Your task to perform on an android device: toggle location history Image 0: 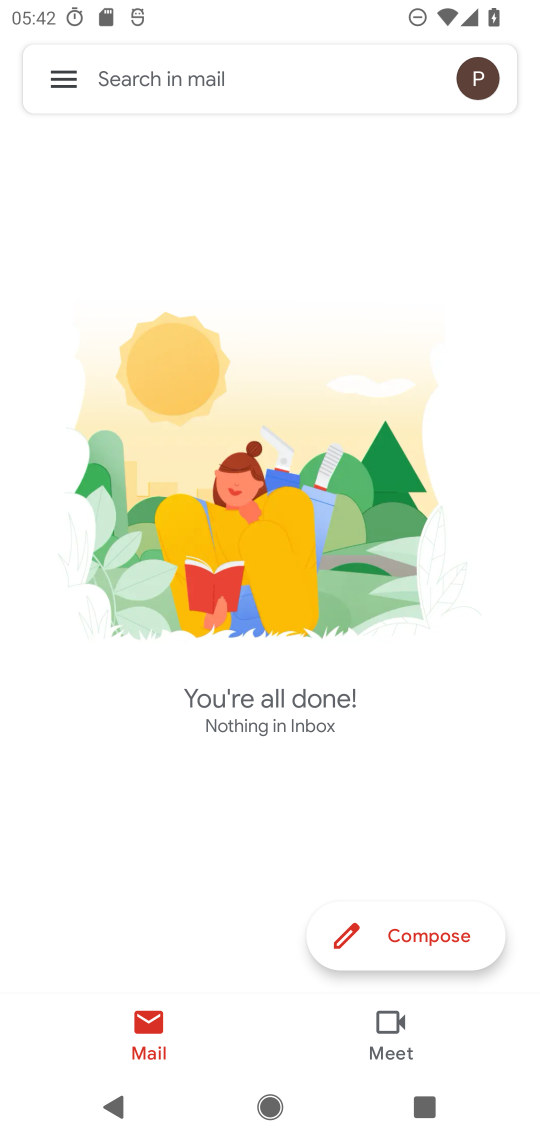
Step 0: press home button
Your task to perform on an android device: toggle location history Image 1: 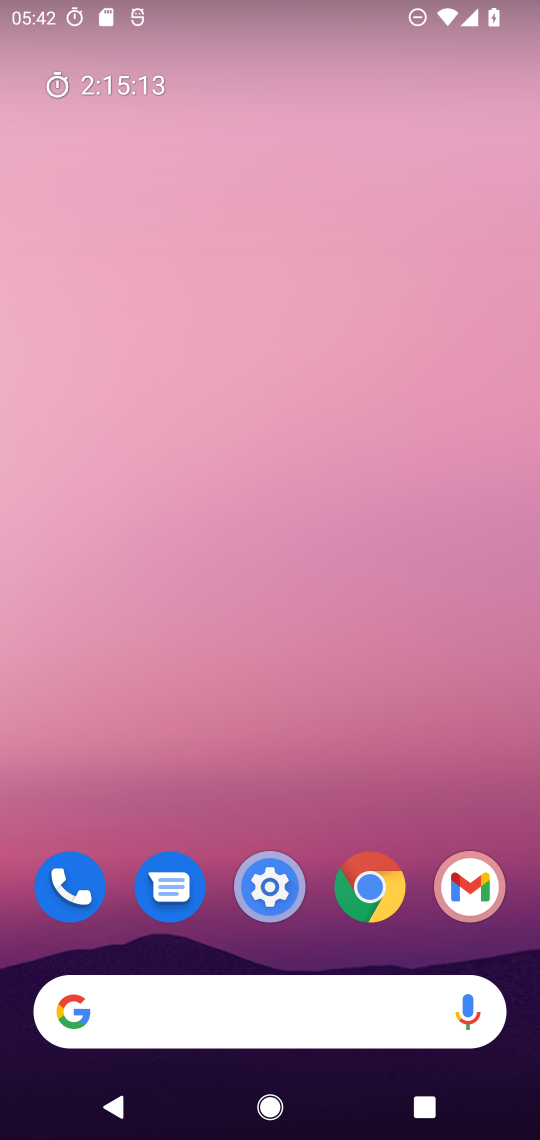
Step 1: drag from (419, 718) to (433, 248)
Your task to perform on an android device: toggle location history Image 2: 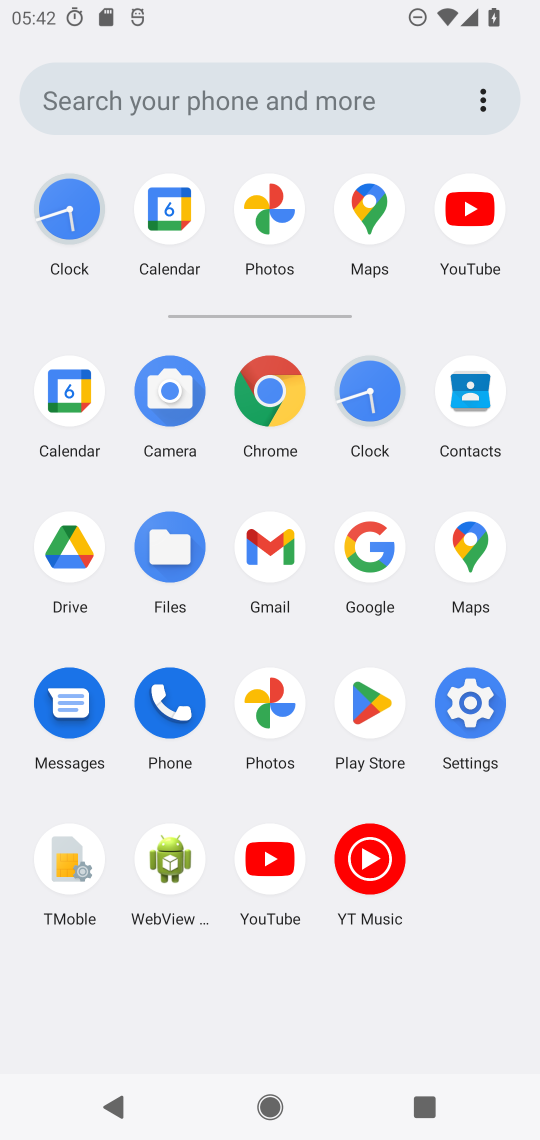
Step 2: click (467, 703)
Your task to perform on an android device: toggle location history Image 3: 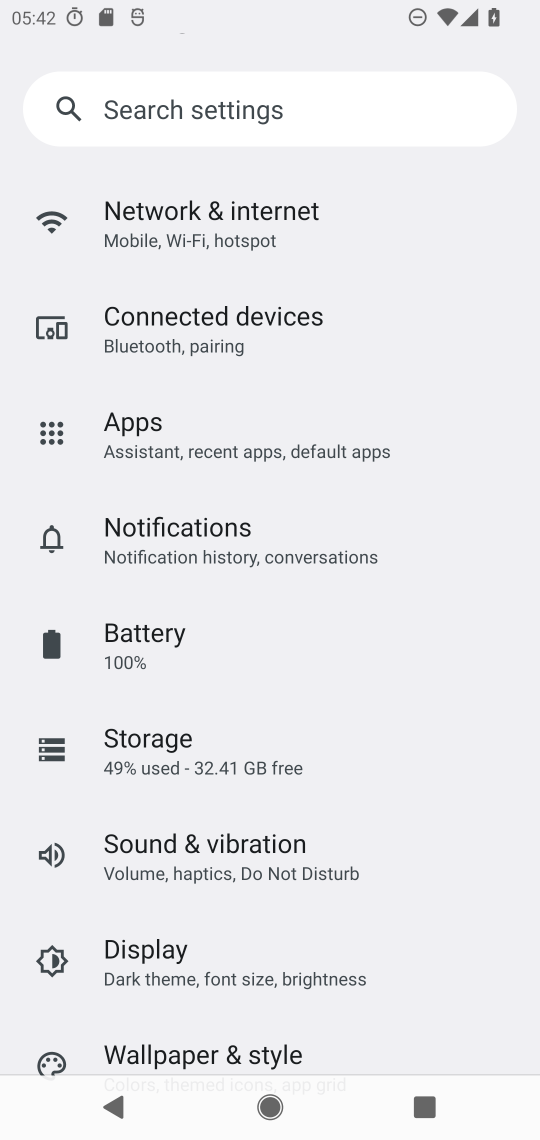
Step 3: drag from (447, 759) to (448, 645)
Your task to perform on an android device: toggle location history Image 4: 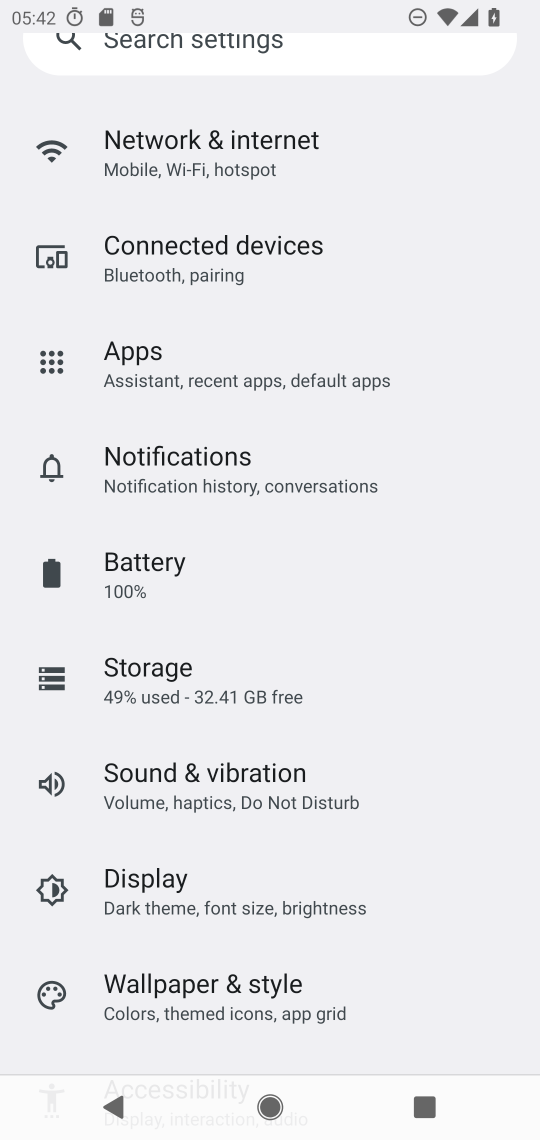
Step 4: drag from (454, 837) to (442, 694)
Your task to perform on an android device: toggle location history Image 5: 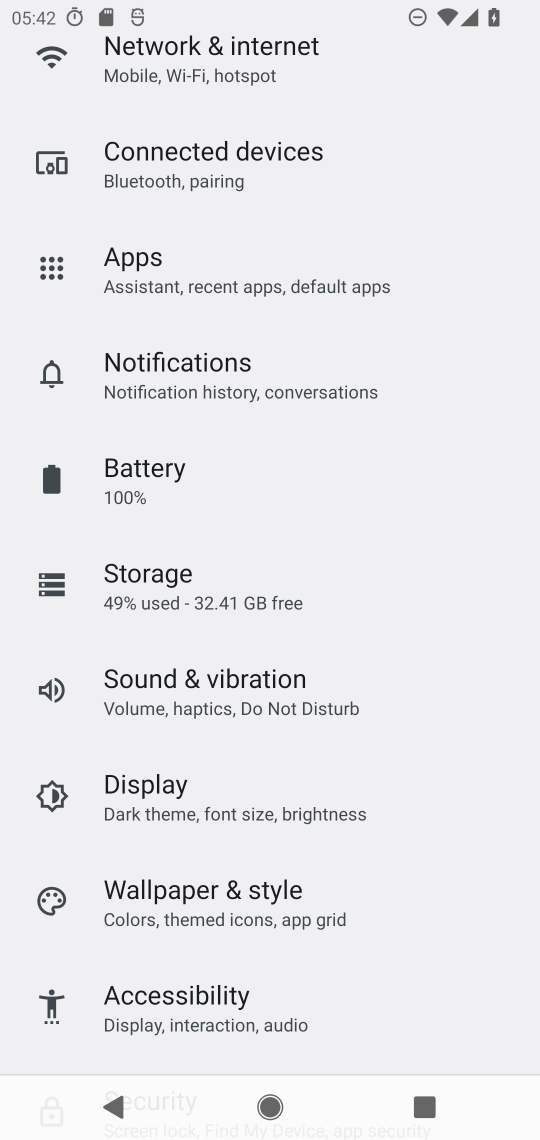
Step 5: drag from (404, 904) to (404, 682)
Your task to perform on an android device: toggle location history Image 6: 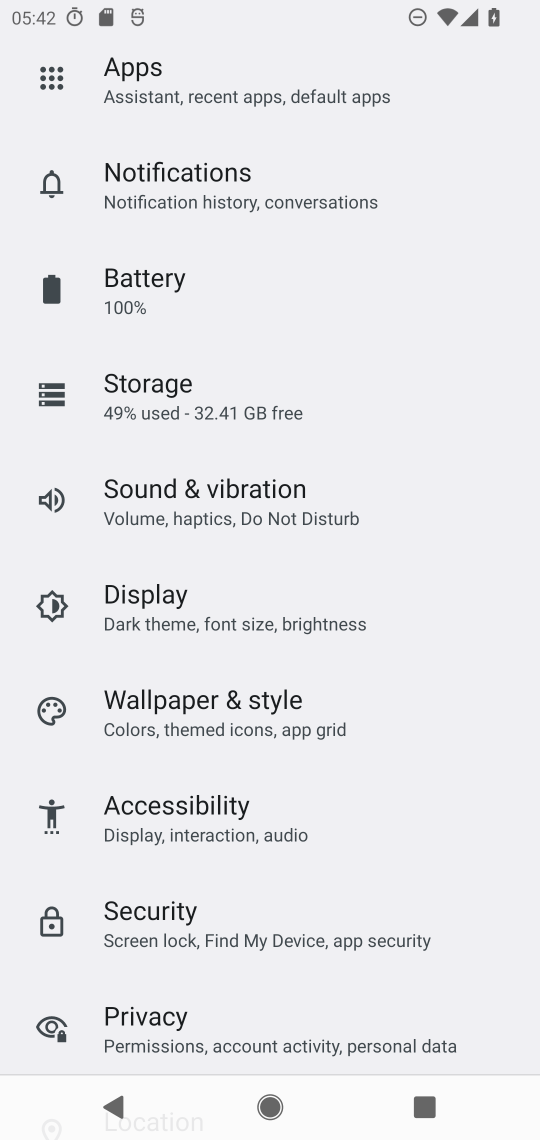
Step 6: drag from (399, 848) to (405, 656)
Your task to perform on an android device: toggle location history Image 7: 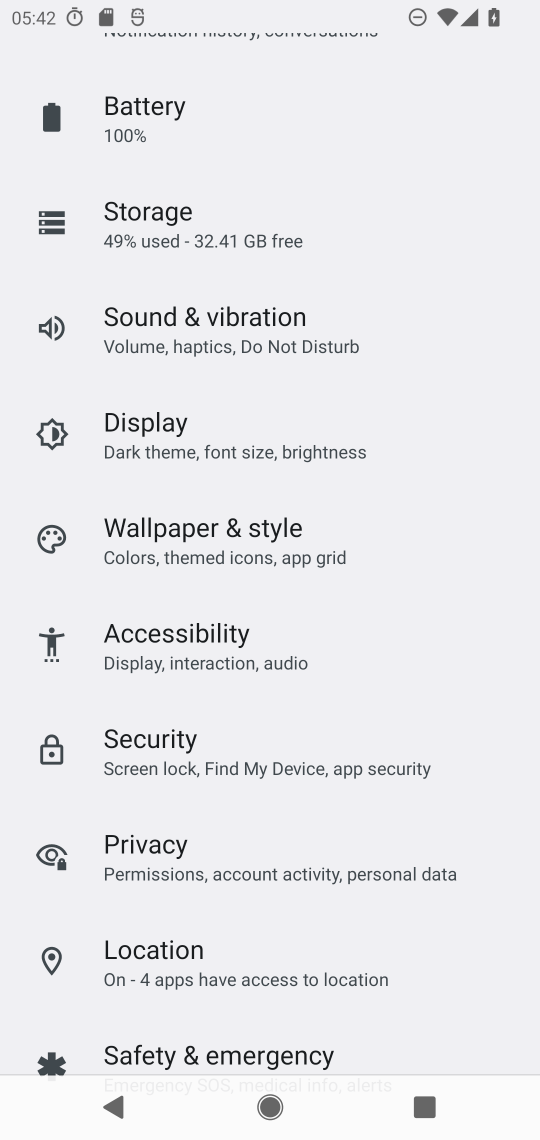
Step 7: drag from (436, 915) to (454, 689)
Your task to perform on an android device: toggle location history Image 8: 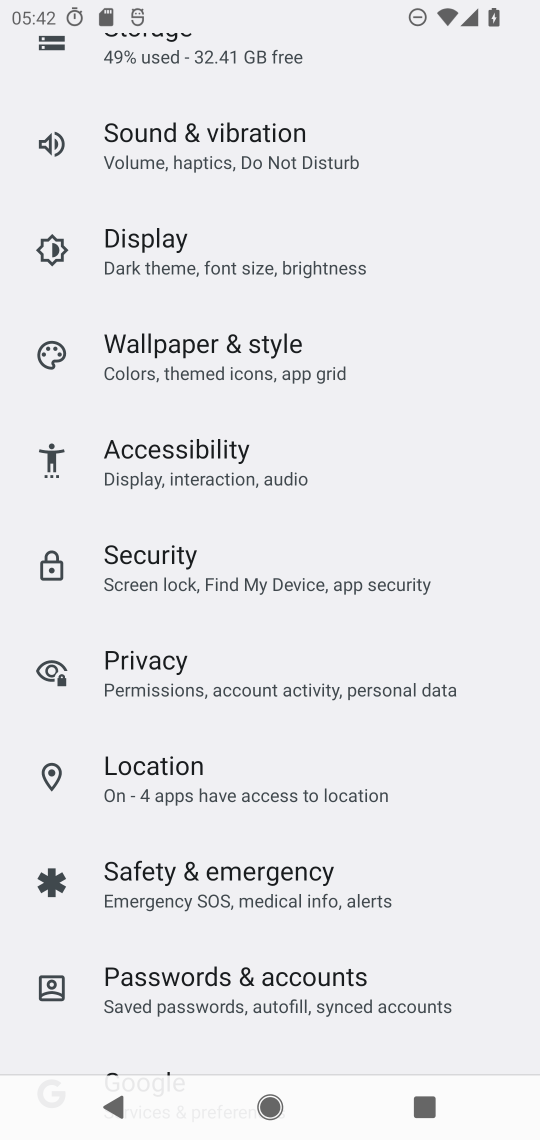
Step 8: drag from (471, 892) to (471, 637)
Your task to perform on an android device: toggle location history Image 9: 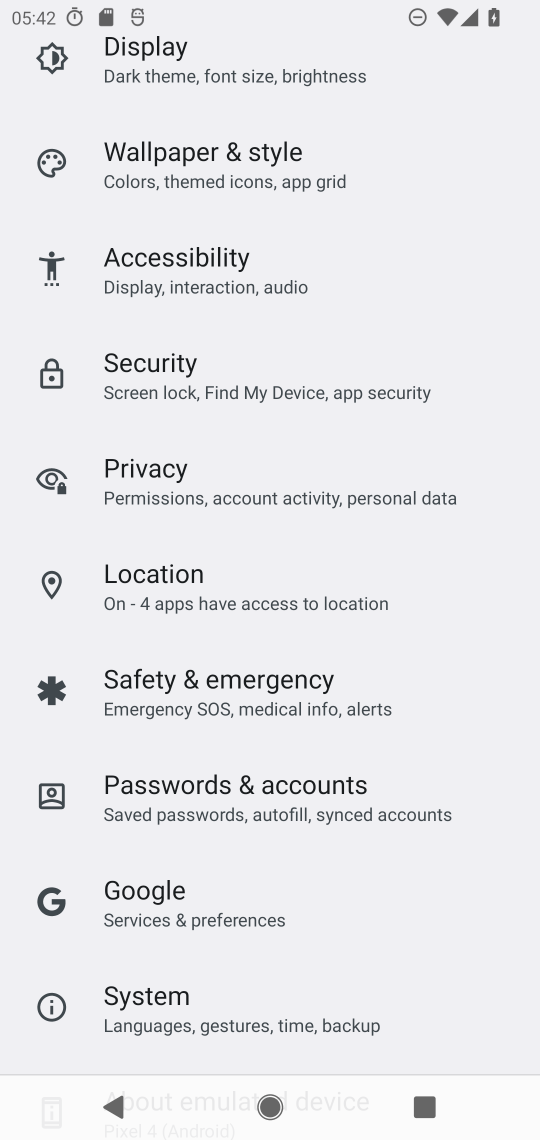
Step 9: click (434, 587)
Your task to perform on an android device: toggle location history Image 10: 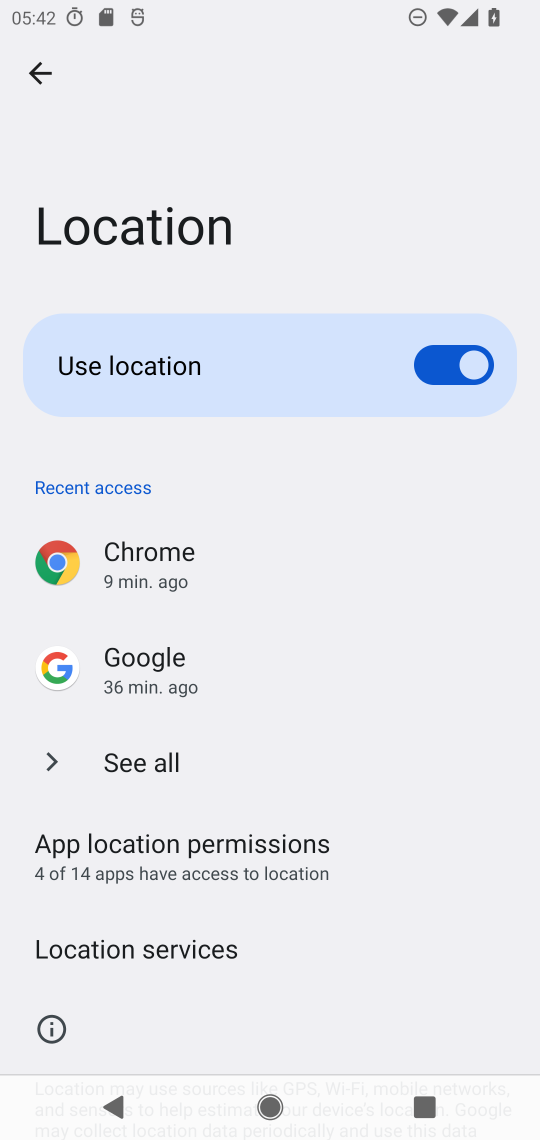
Step 10: click (194, 955)
Your task to perform on an android device: toggle location history Image 11: 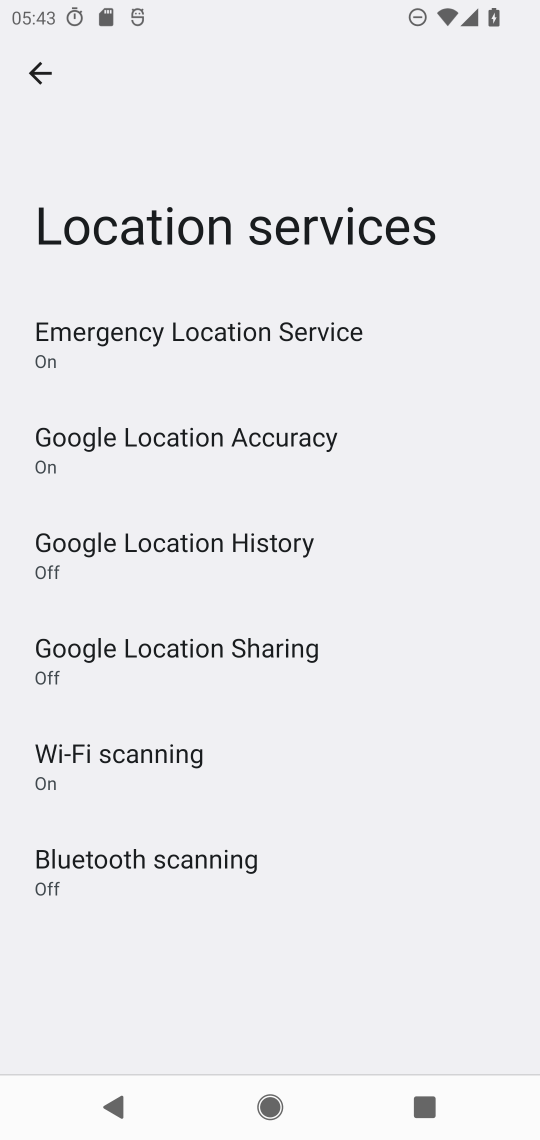
Step 11: click (230, 547)
Your task to perform on an android device: toggle location history Image 12: 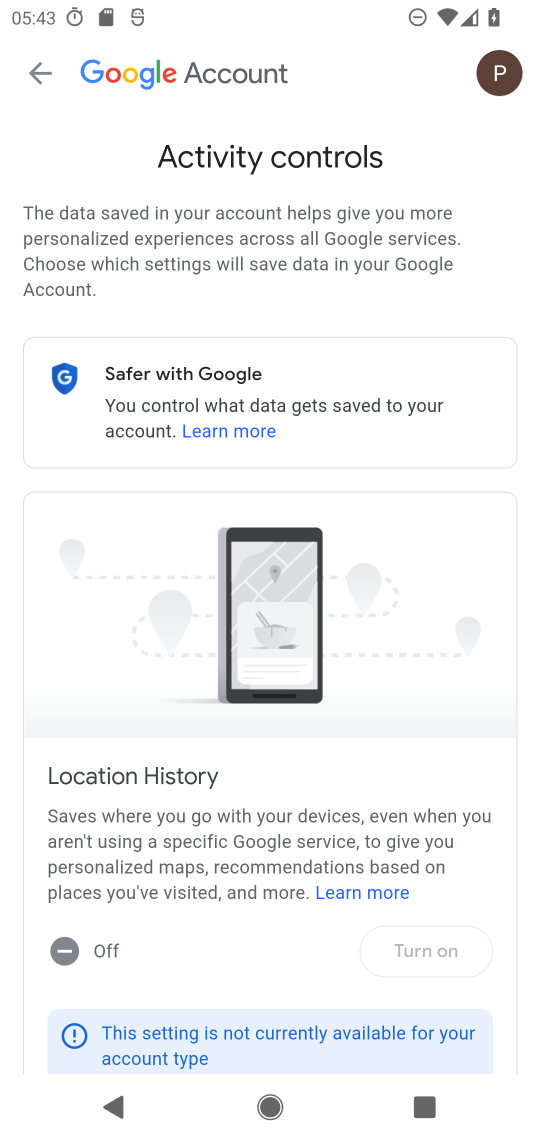
Step 12: task complete